Your task to perform on an android device: empty trash in google photos Image 0: 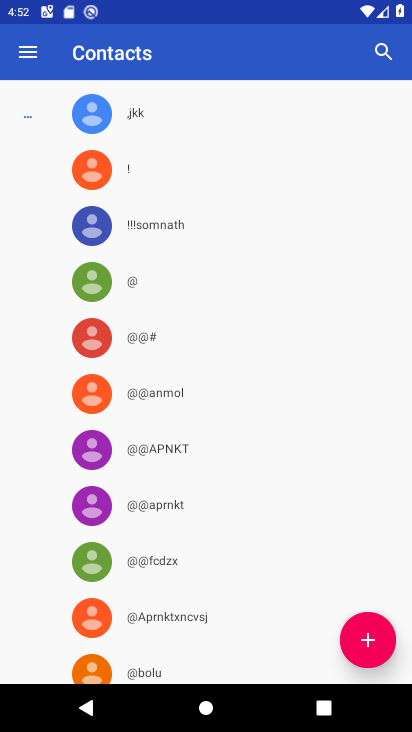
Step 0: press home button
Your task to perform on an android device: empty trash in google photos Image 1: 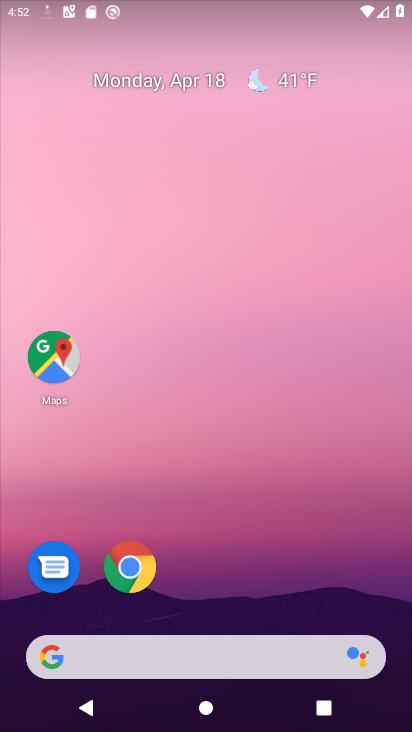
Step 1: drag from (341, 410) to (301, 21)
Your task to perform on an android device: empty trash in google photos Image 2: 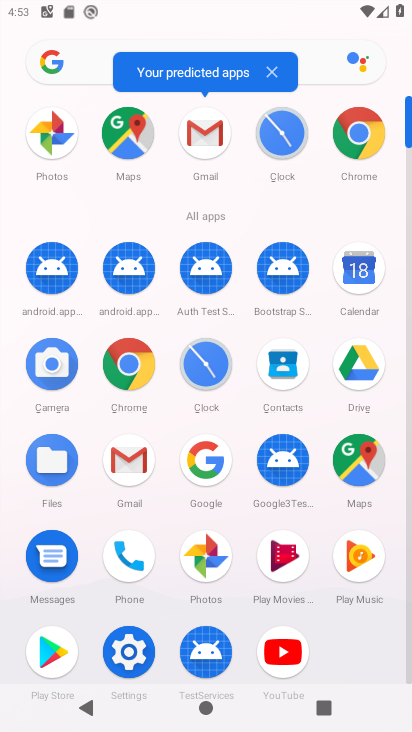
Step 2: click (55, 126)
Your task to perform on an android device: empty trash in google photos Image 3: 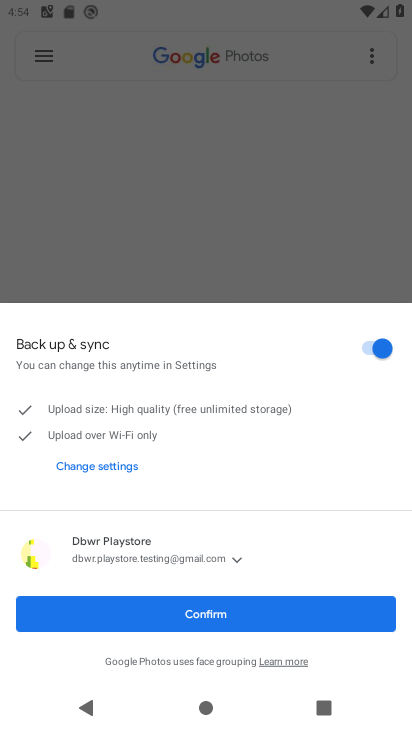
Step 3: click (216, 630)
Your task to perform on an android device: empty trash in google photos Image 4: 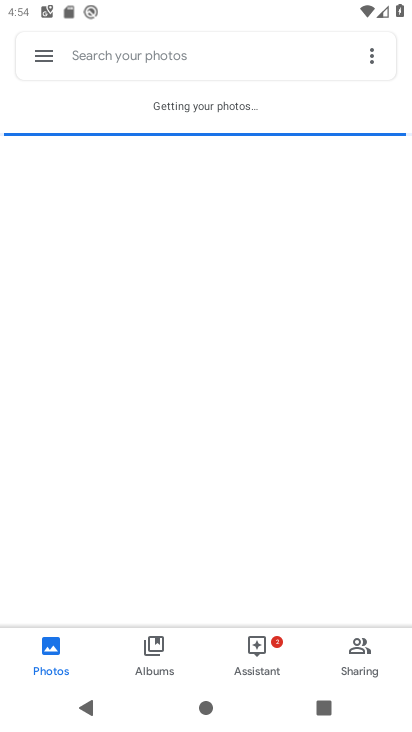
Step 4: click (37, 57)
Your task to perform on an android device: empty trash in google photos Image 5: 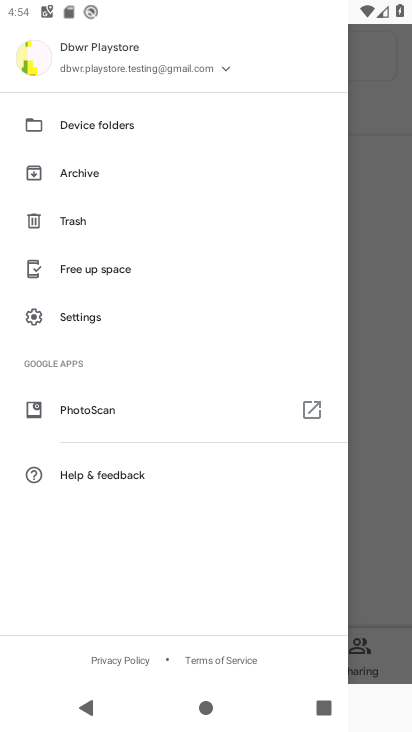
Step 5: click (74, 220)
Your task to perform on an android device: empty trash in google photos Image 6: 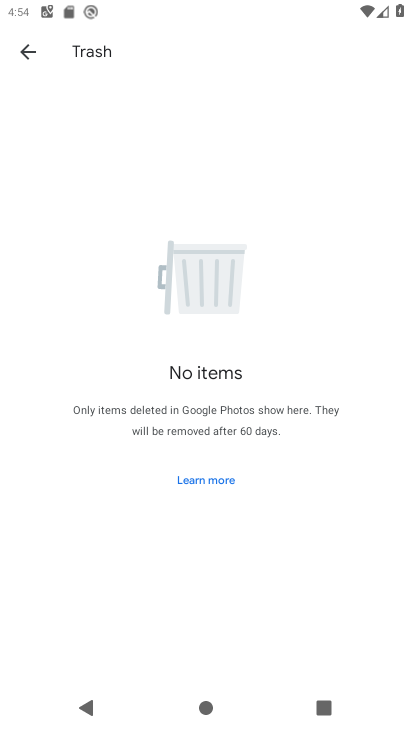
Step 6: task complete